Your task to perform on an android device: delete a single message in the gmail app Image 0: 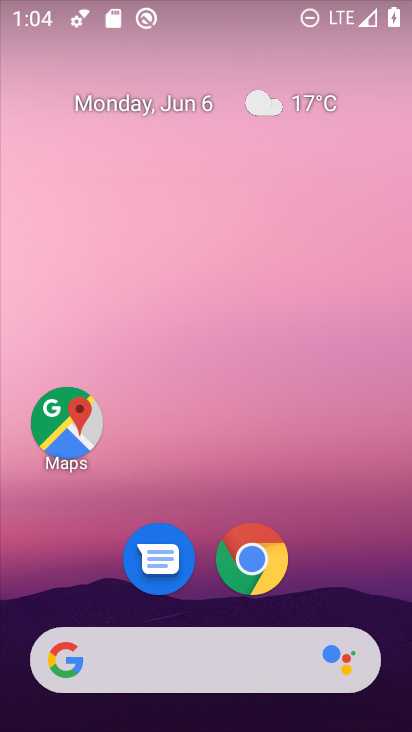
Step 0: drag from (237, 682) to (236, 83)
Your task to perform on an android device: delete a single message in the gmail app Image 1: 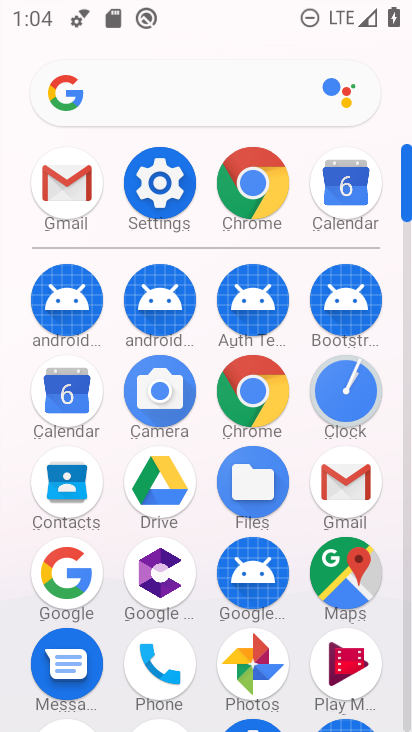
Step 1: click (357, 501)
Your task to perform on an android device: delete a single message in the gmail app Image 2: 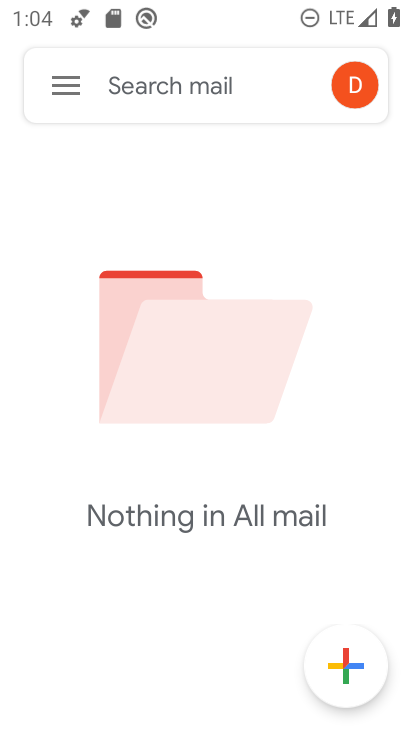
Step 2: click (57, 88)
Your task to perform on an android device: delete a single message in the gmail app Image 3: 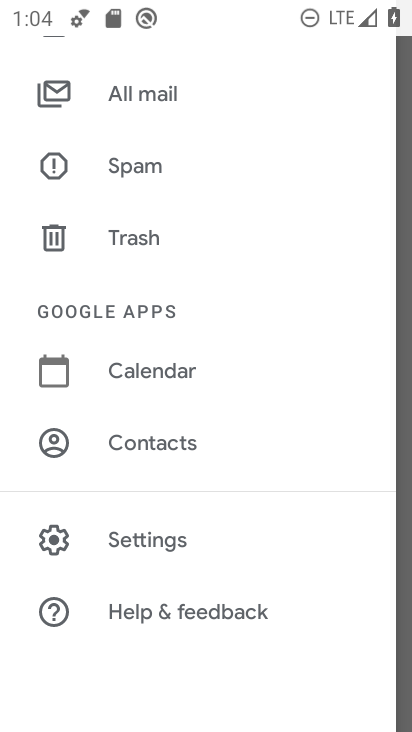
Step 3: click (171, 112)
Your task to perform on an android device: delete a single message in the gmail app Image 4: 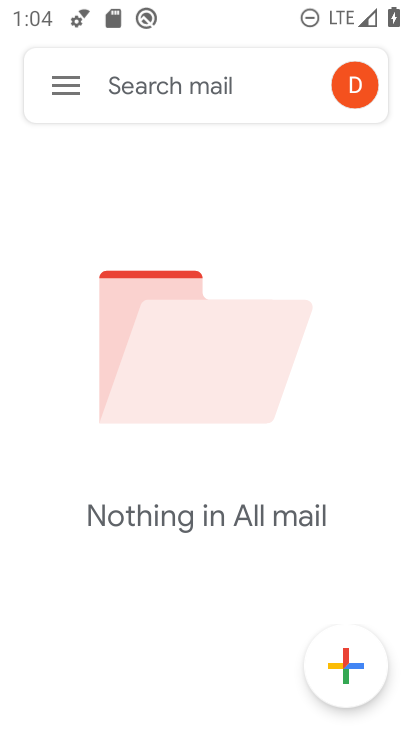
Step 4: task complete